Your task to perform on an android device: Is it going to rain tomorrow? Image 0: 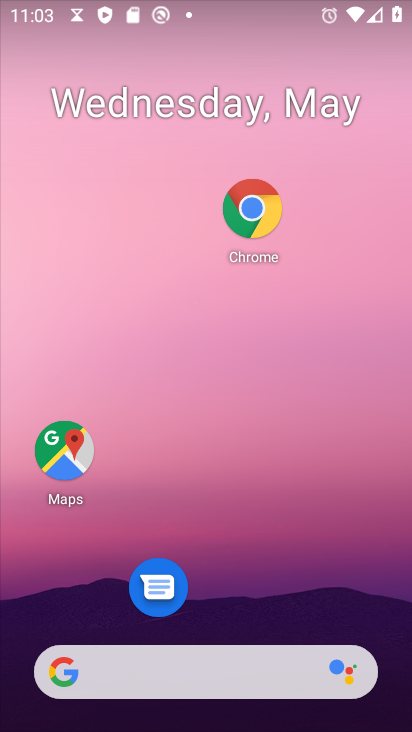
Step 0: drag from (233, 615) to (224, 95)
Your task to perform on an android device: Is it going to rain tomorrow? Image 1: 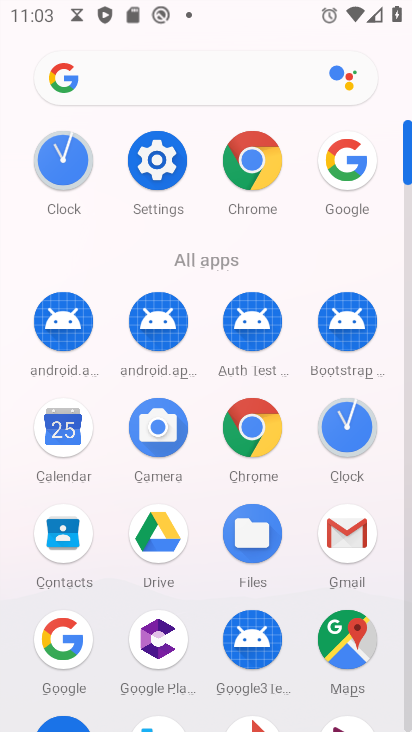
Step 1: click (63, 640)
Your task to perform on an android device: Is it going to rain tomorrow? Image 2: 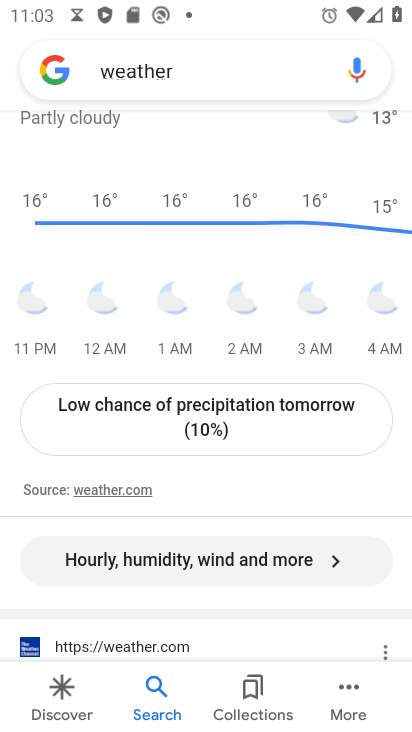
Step 2: drag from (256, 287) to (200, 728)
Your task to perform on an android device: Is it going to rain tomorrow? Image 3: 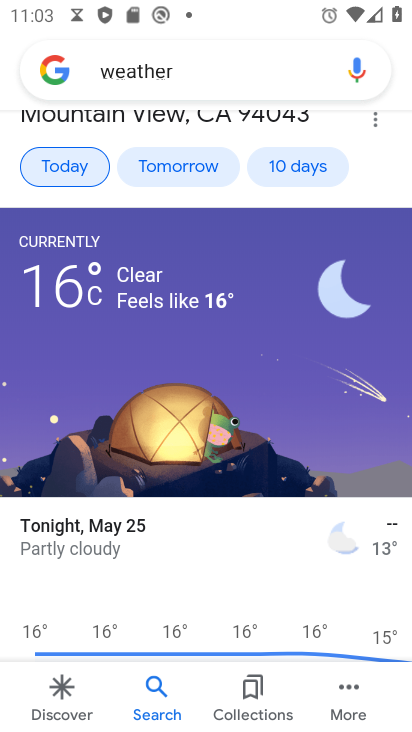
Step 3: click (197, 140)
Your task to perform on an android device: Is it going to rain tomorrow? Image 4: 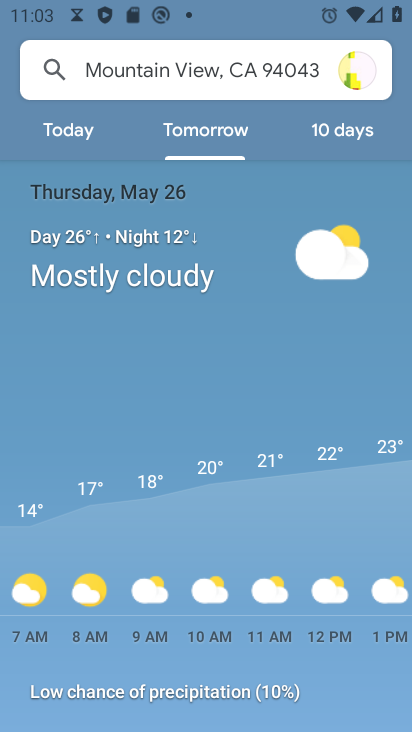
Step 4: click (253, 285)
Your task to perform on an android device: Is it going to rain tomorrow? Image 5: 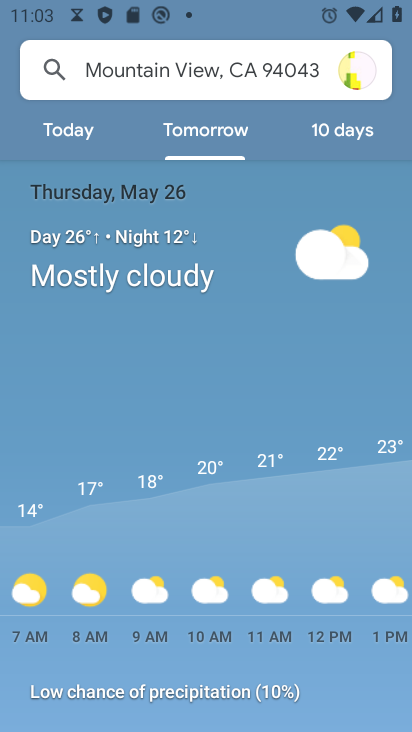
Step 5: task complete